Your task to perform on an android device: all mails in gmail Image 0: 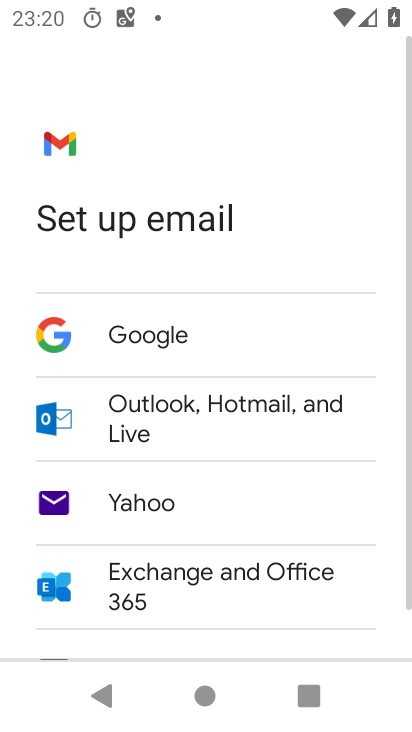
Step 0: press home button
Your task to perform on an android device: all mails in gmail Image 1: 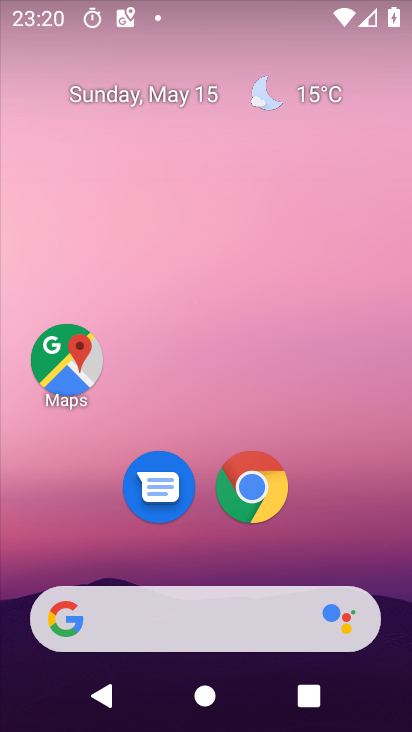
Step 1: drag from (391, 645) to (322, 297)
Your task to perform on an android device: all mails in gmail Image 2: 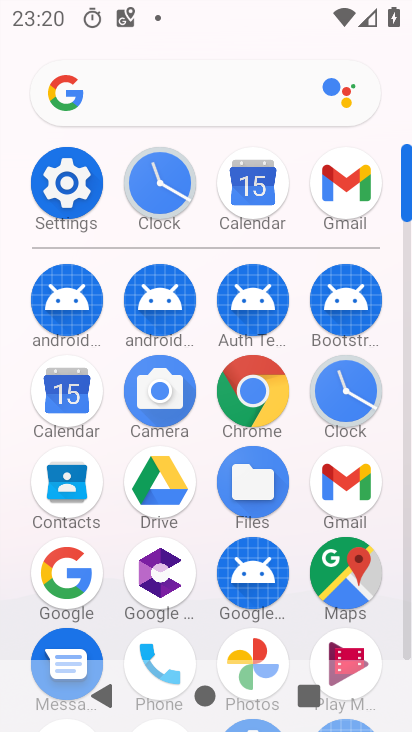
Step 2: click (64, 169)
Your task to perform on an android device: all mails in gmail Image 3: 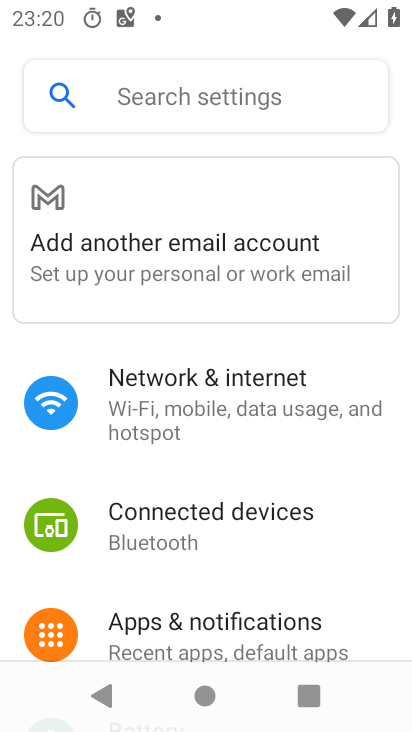
Step 3: press home button
Your task to perform on an android device: all mails in gmail Image 4: 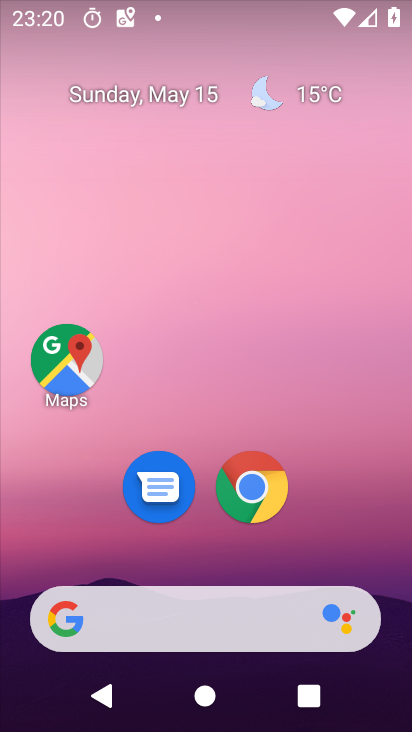
Step 4: drag from (370, 544) to (341, 282)
Your task to perform on an android device: all mails in gmail Image 5: 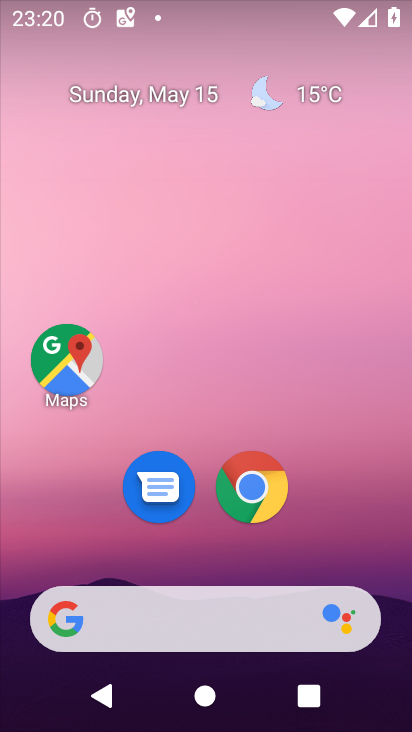
Step 5: click (377, 357)
Your task to perform on an android device: all mails in gmail Image 6: 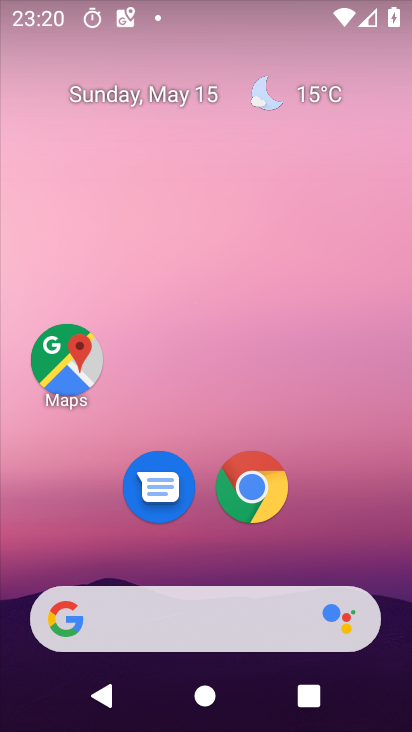
Step 6: drag from (394, 661) to (378, 319)
Your task to perform on an android device: all mails in gmail Image 7: 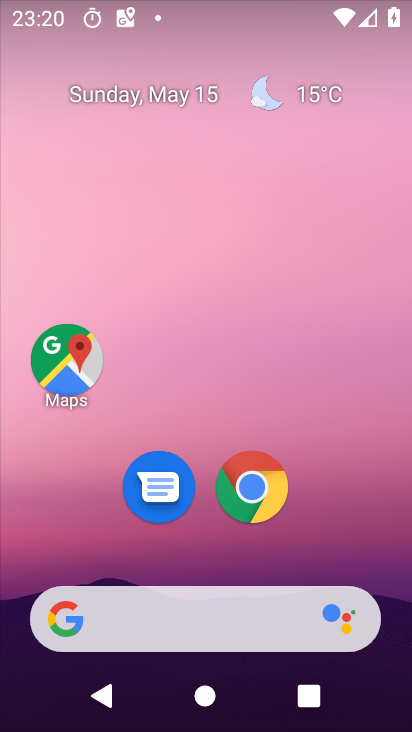
Step 7: drag from (394, 668) to (388, 296)
Your task to perform on an android device: all mails in gmail Image 8: 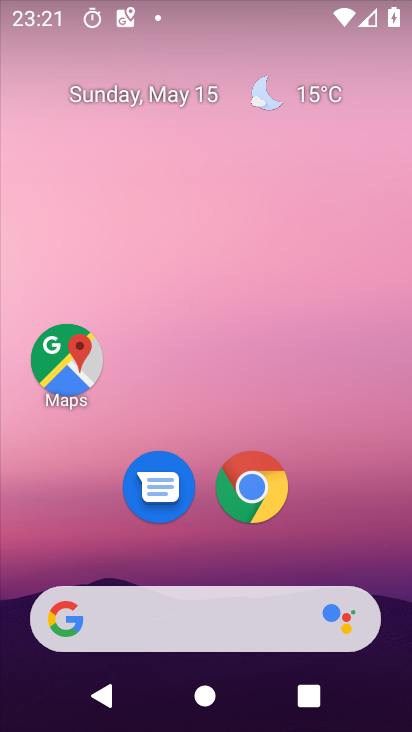
Step 8: click (363, 262)
Your task to perform on an android device: all mails in gmail Image 9: 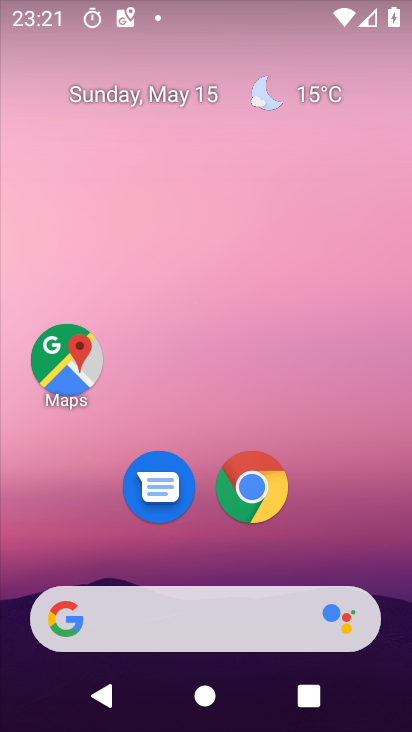
Step 9: drag from (385, 518) to (374, 287)
Your task to perform on an android device: all mails in gmail Image 10: 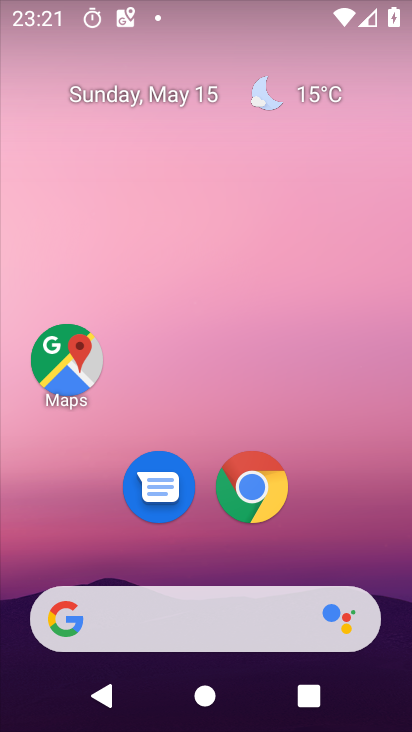
Step 10: drag from (397, 691) to (368, 210)
Your task to perform on an android device: all mails in gmail Image 11: 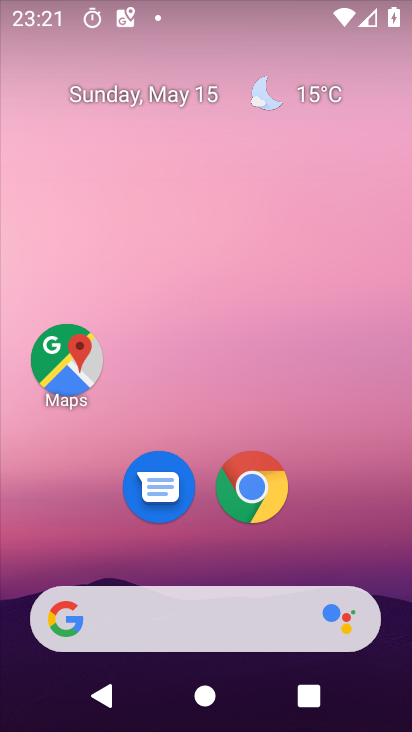
Step 11: drag from (385, 607) to (385, 153)
Your task to perform on an android device: all mails in gmail Image 12: 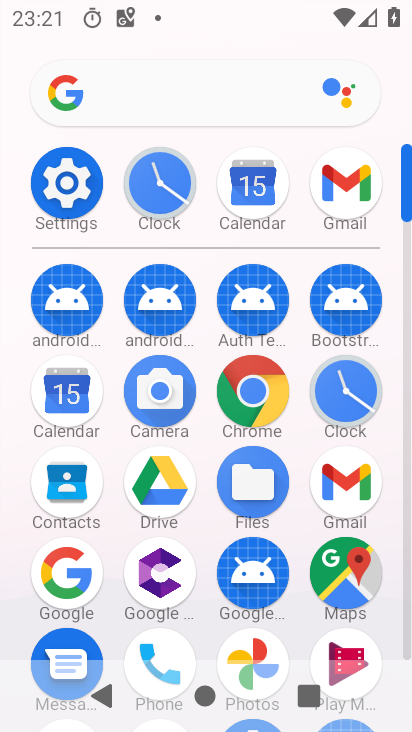
Step 12: click (330, 498)
Your task to perform on an android device: all mails in gmail Image 13: 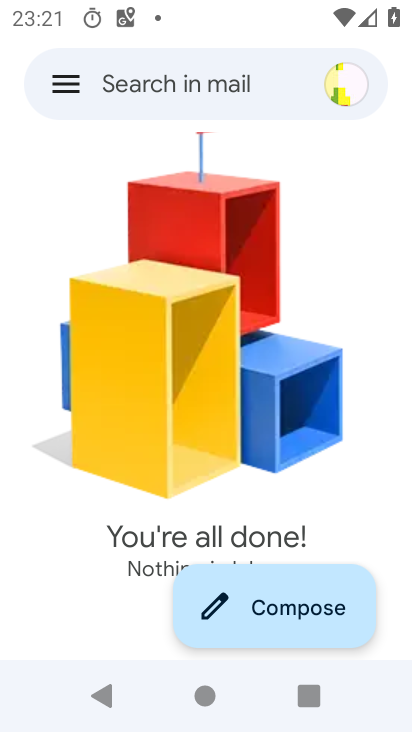
Step 13: click (66, 78)
Your task to perform on an android device: all mails in gmail Image 14: 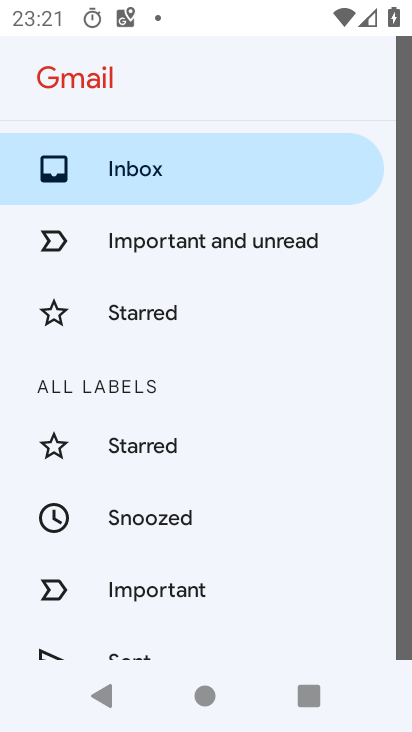
Step 14: click (238, 319)
Your task to perform on an android device: all mails in gmail Image 15: 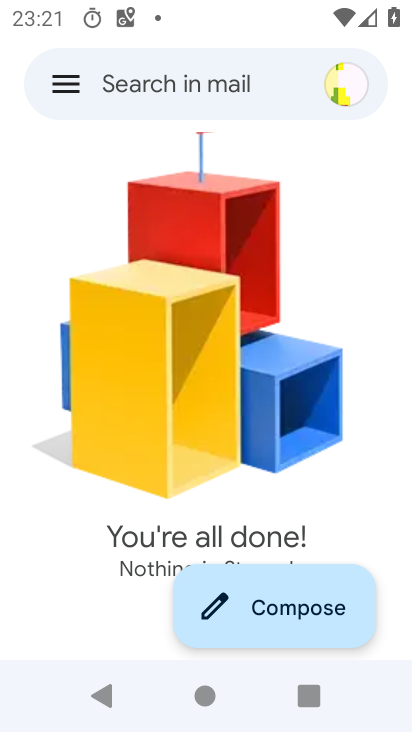
Step 15: click (71, 77)
Your task to perform on an android device: all mails in gmail Image 16: 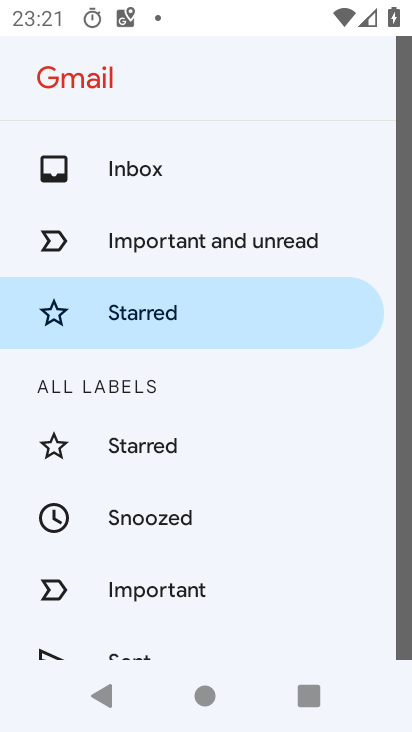
Step 16: drag from (299, 613) to (293, 347)
Your task to perform on an android device: all mails in gmail Image 17: 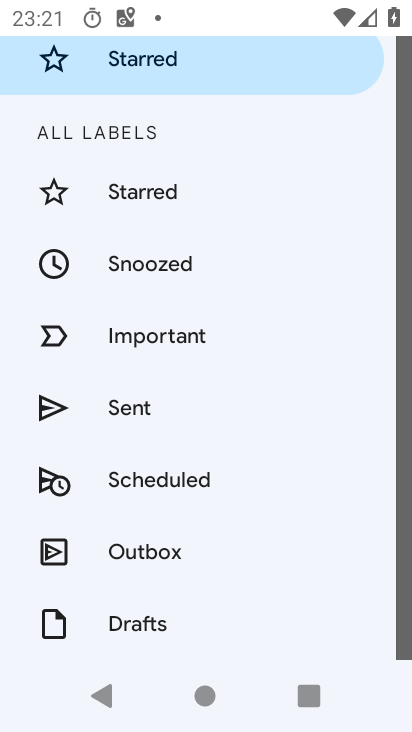
Step 17: drag from (327, 549) to (335, 311)
Your task to perform on an android device: all mails in gmail Image 18: 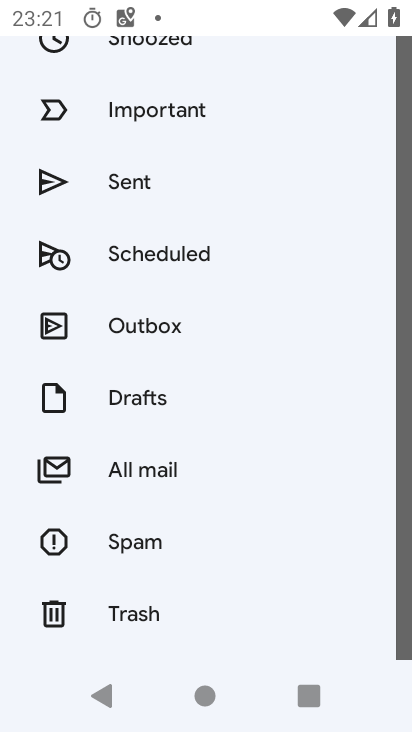
Step 18: drag from (267, 608) to (262, 339)
Your task to perform on an android device: all mails in gmail Image 19: 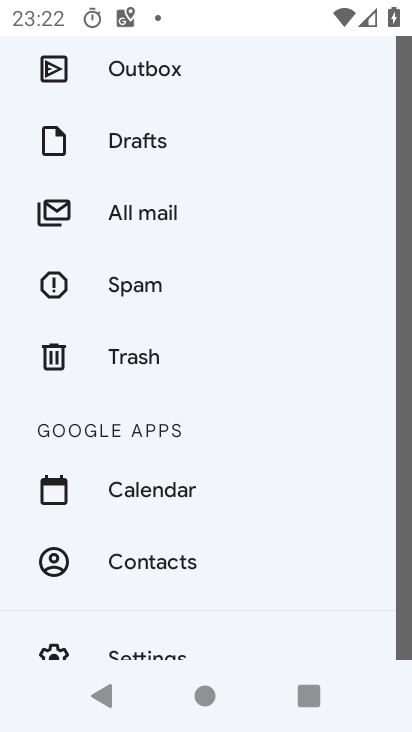
Step 19: click (118, 211)
Your task to perform on an android device: all mails in gmail Image 20: 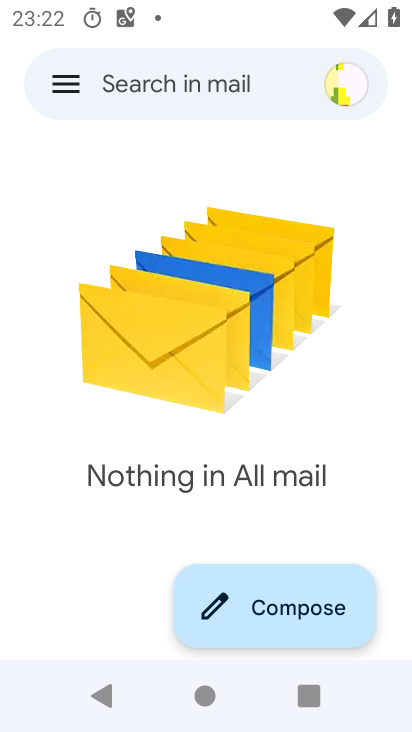
Step 20: task complete